Your task to perform on an android device: turn on location history Image 0: 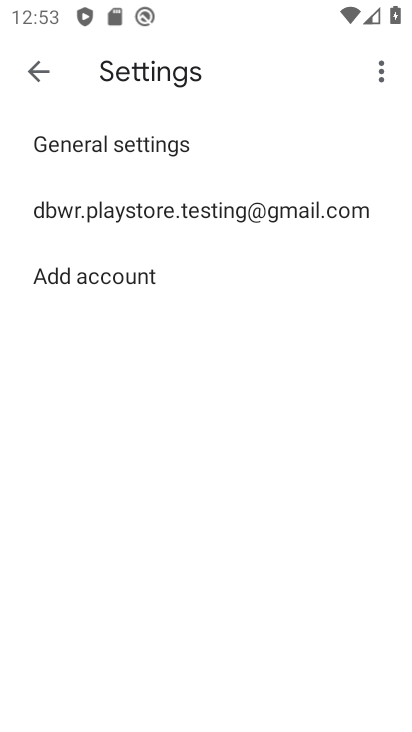
Step 0: press home button
Your task to perform on an android device: turn on location history Image 1: 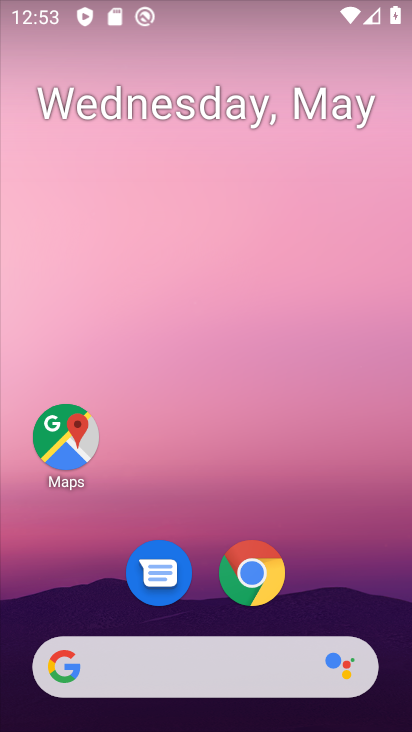
Step 1: click (70, 440)
Your task to perform on an android device: turn on location history Image 2: 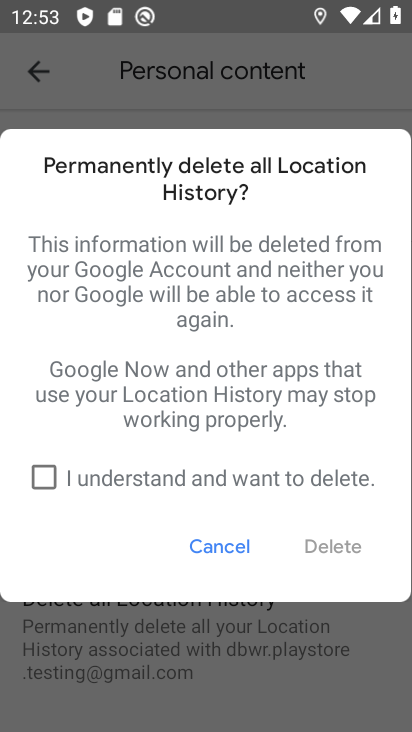
Step 2: click (221, 552)
Your task to perform on an android device: turn on location history Image 3: 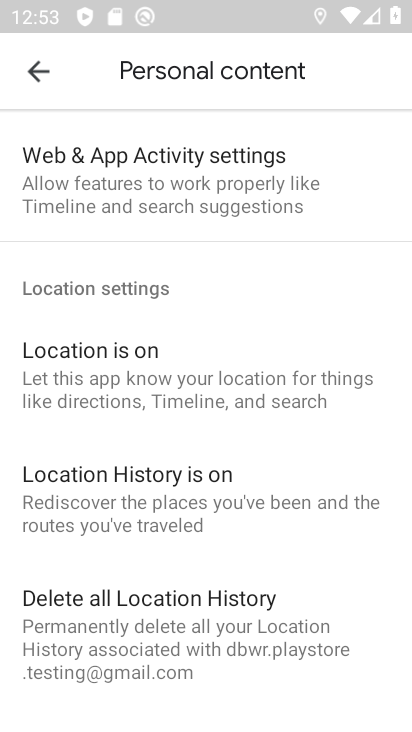
Step 3: click (130, 475)
Your task to perform on an android device: turn on location history Image 4: 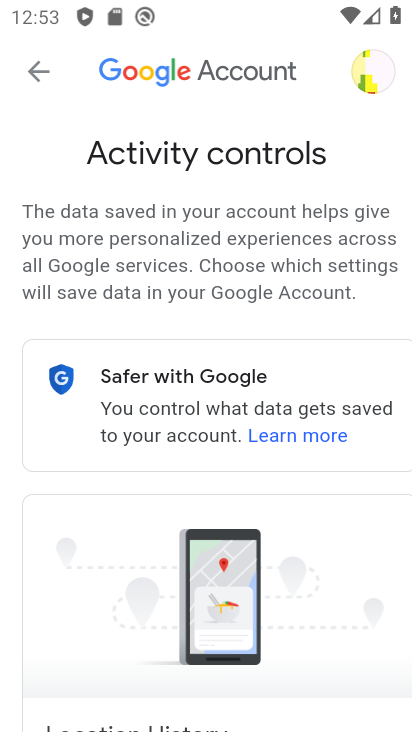
Step 4: task complete